Your task to perform on an android device: open a new tab in the chrome app Image 0: 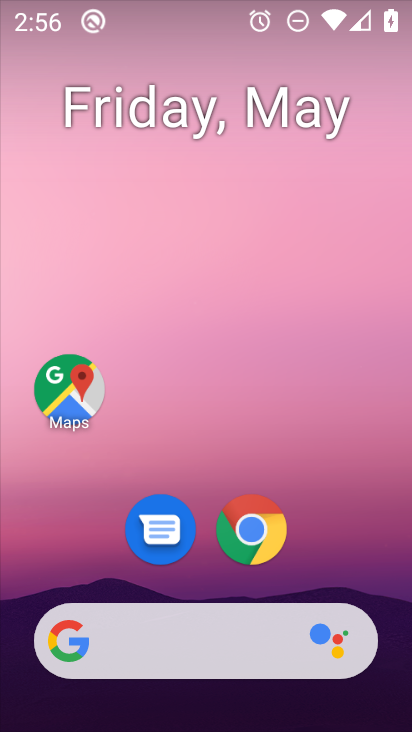
Step 0: click (256, 539)
Your task to perform on an android device: open a new tab in the chrome app Image 1: 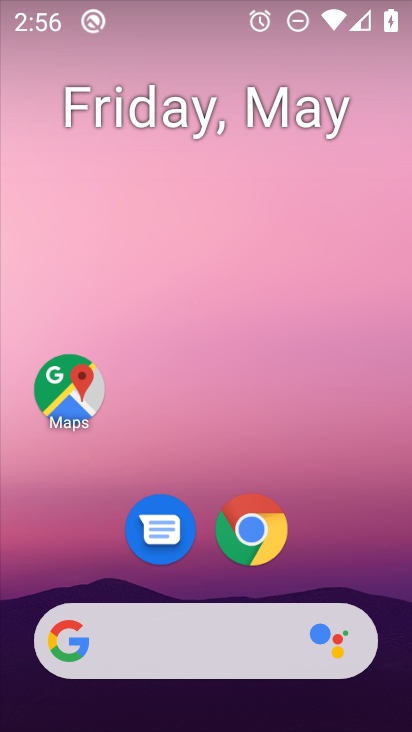
Step 1: click (249, 526)
Your task to perform on an android device: open a new tab in the chrome app Image 2: 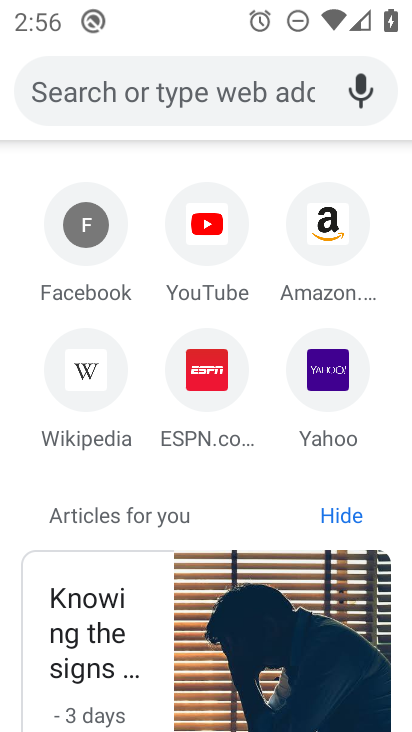
Step 2: drag from (388, 57) to (400, 426)
Your task to perform on an android device: open a new tab in the chrome app Image 3: 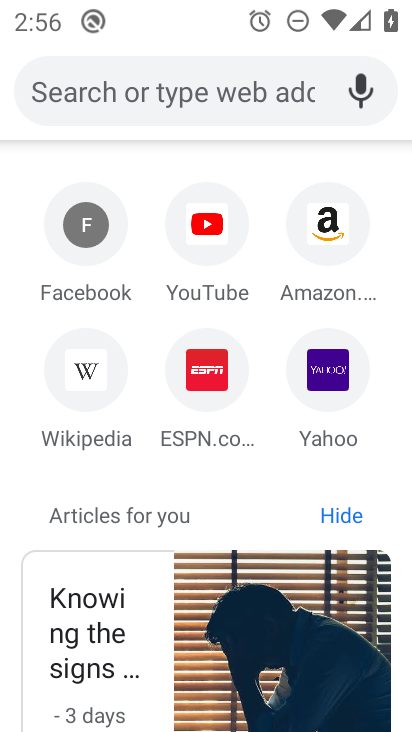
Step 3: drag from (359, 40) to (402, 313)
Your task to perform on an android device: open a new tab in the chrome app Image 4: 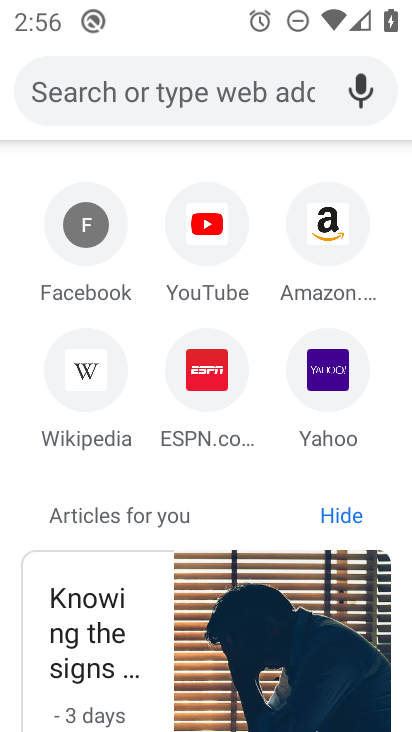
Step 4: drag from (376, 43) to (411, 368)
Your task to perform on an android device: open a new tab in the chrome app Image 5: 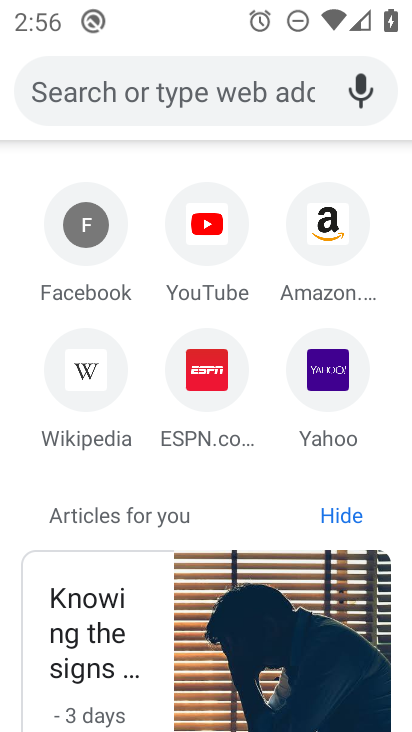
Step 5: drag from (380, 156) to (390, 479)
Your task to perform on an android device: open a new tab in the chrome app Image 6: 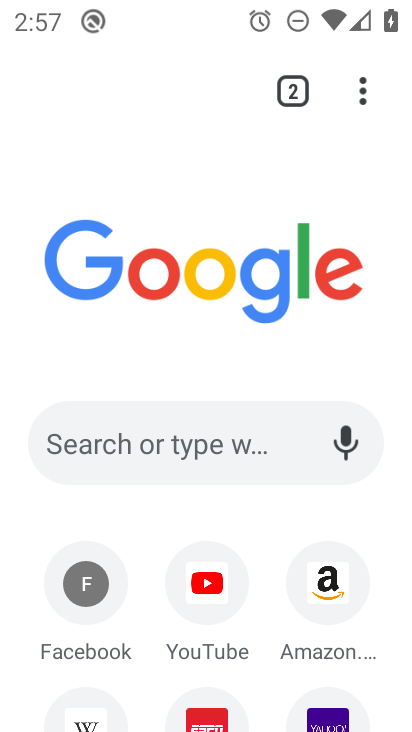
Step 6: click (365, 82)
Your task to perform on an android device: open a new tab in the chrome app Image 7: 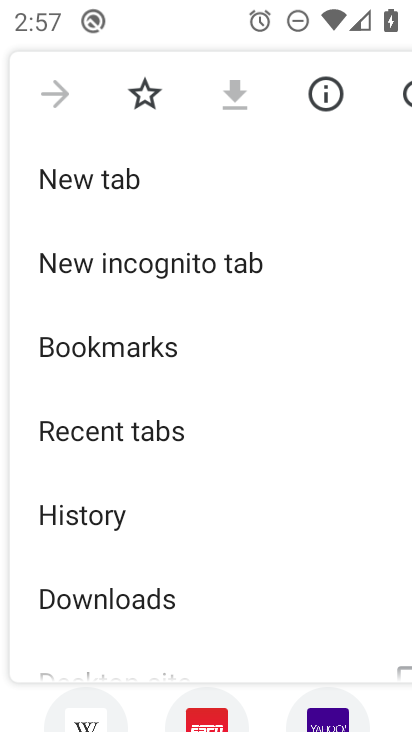
Step 7: click (407, 93)
Your task to perform on an android device: open a new tab in the chrome app Image 8: 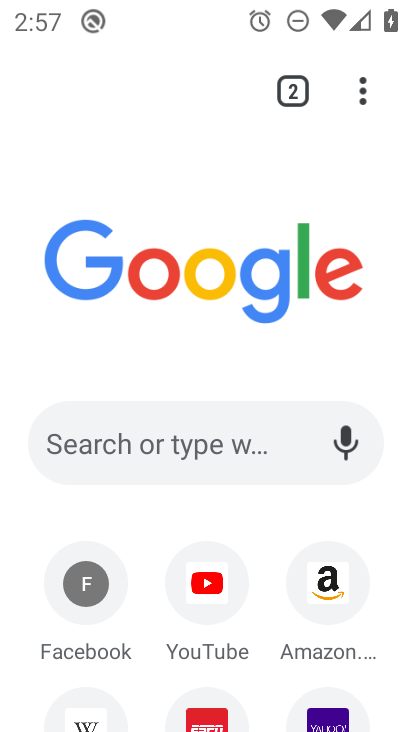
Step 8: task complete